Your task to perform on an android device: Turn on the flashlight Image 0: 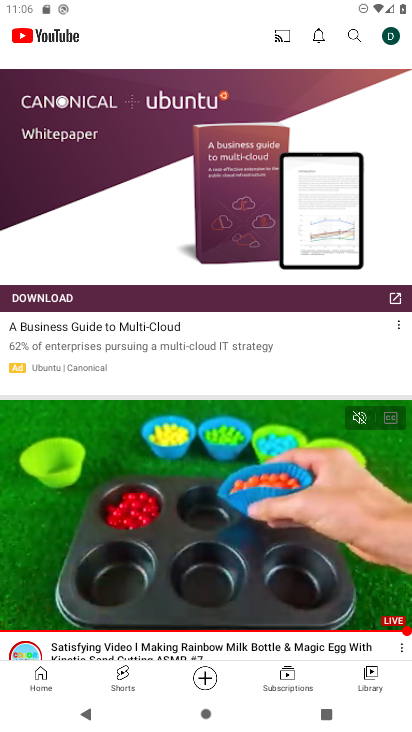
Step 0: press home button
Your task to perform on an android device: Turn on the flashlight Image 1: 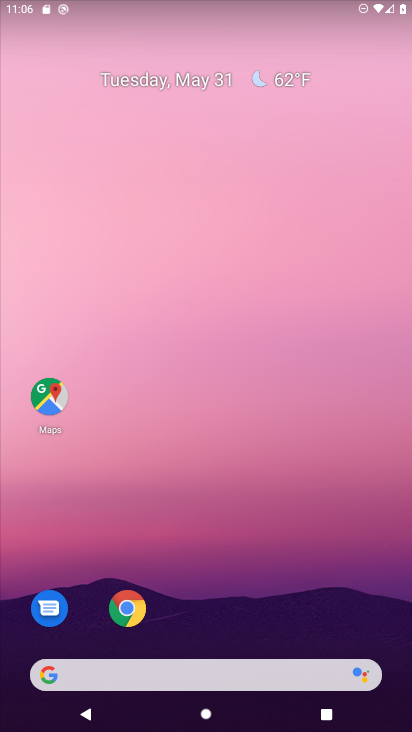
Step 1: drag from (298, 453) to (304, 203)
Your task to perform on an android device: Turn on the flashlight Image 2: 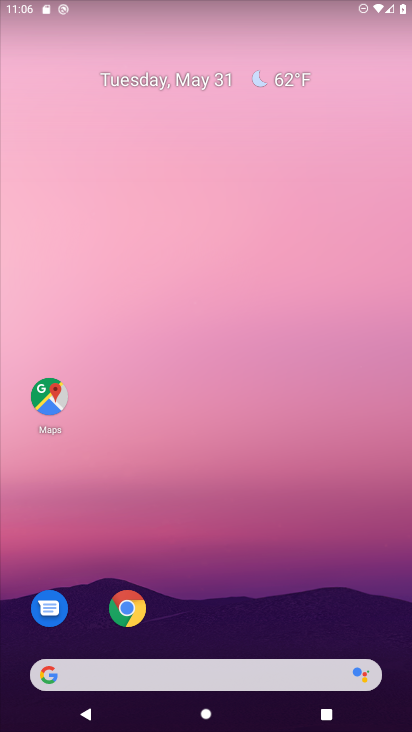
Step 2: drag from (376, 518) to (378, 96)
Your task to perform on an android device: Turn on the flashlight Image 3: 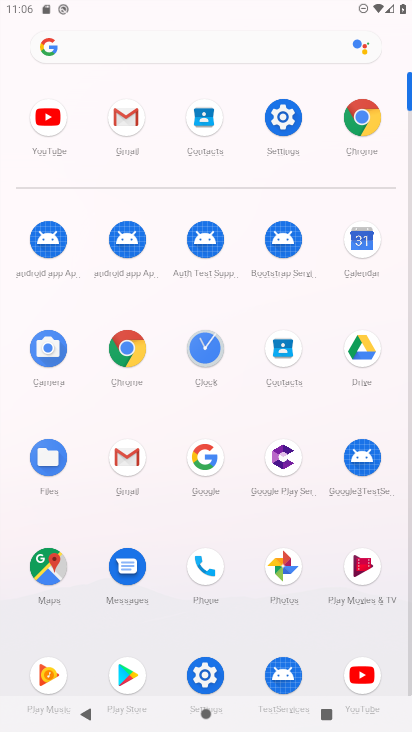
Step 3: click (199, 669)
Your task to perform on an android device: Turn on the flashlight Image 4: 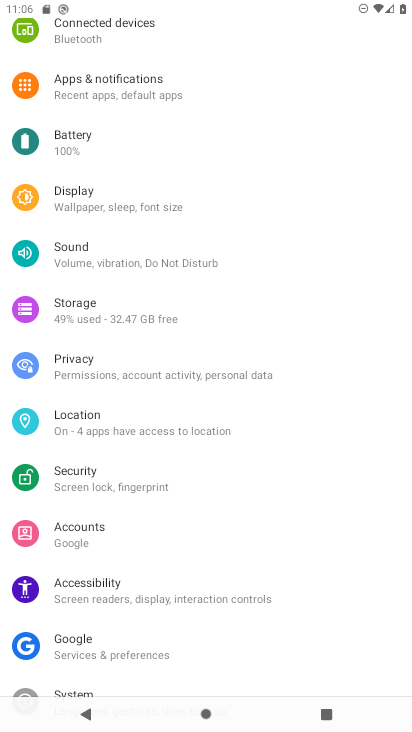
Step 4: drag from (248, 141) to (200, 569)
Your task to perform on an android device: Turn on the flashlight Image 5: 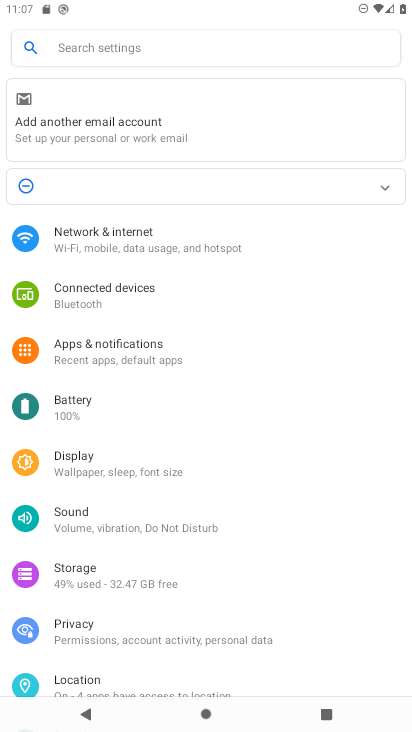
Step 5: click (184, 44)
Your task to perform on an android device: Turn on the flashlight Image 6: 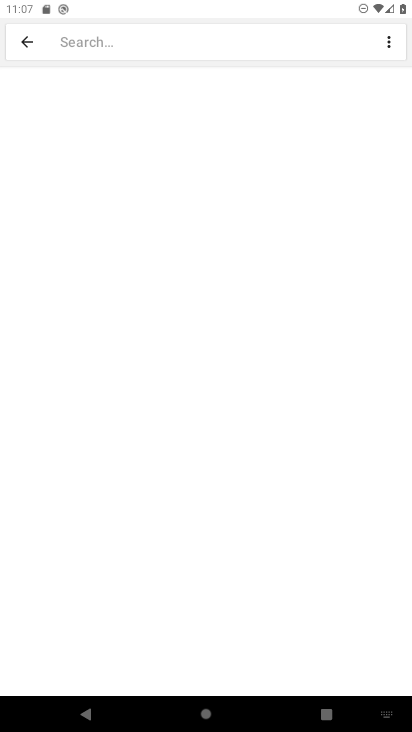
Step 6: type "flashlight"
Your task to perform on an android device: Turn on the flashlight Image 7: 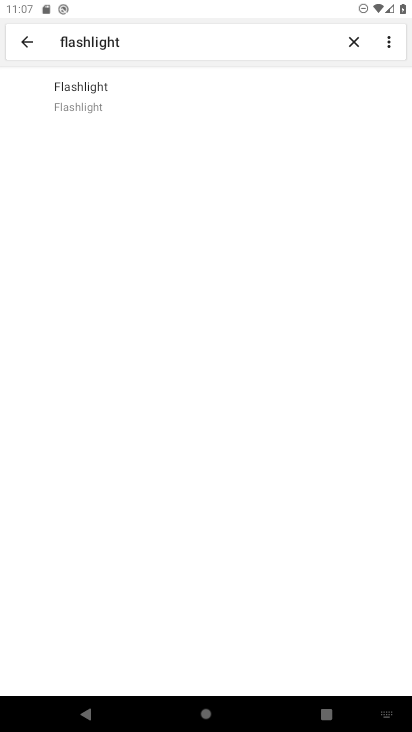
Step 7: task complete